Your task to perform on an android device: uninstall "Booking.com: Hotels and more" Image 0: 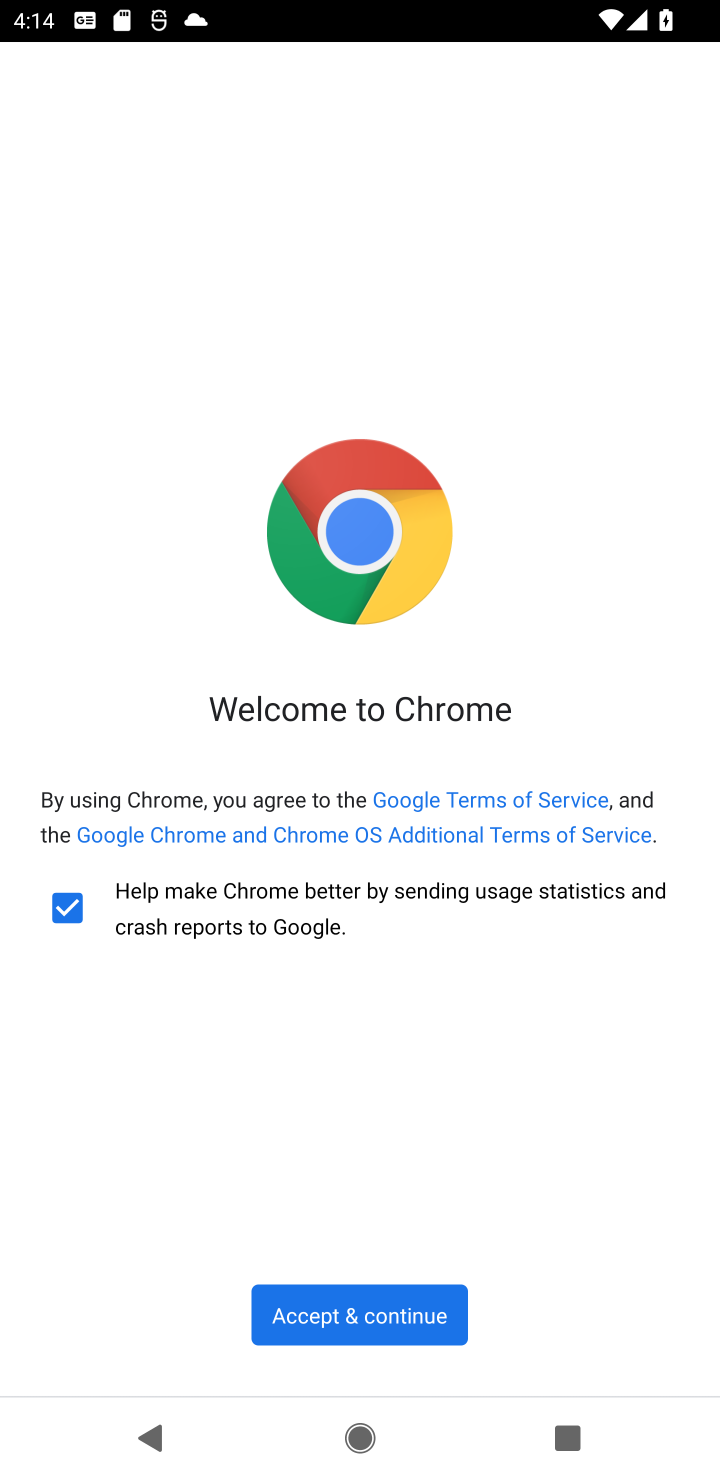
Step 0: press home button
Your task to perform on an android device: uninstall "Booking.com: Hotels and more" Image 1: 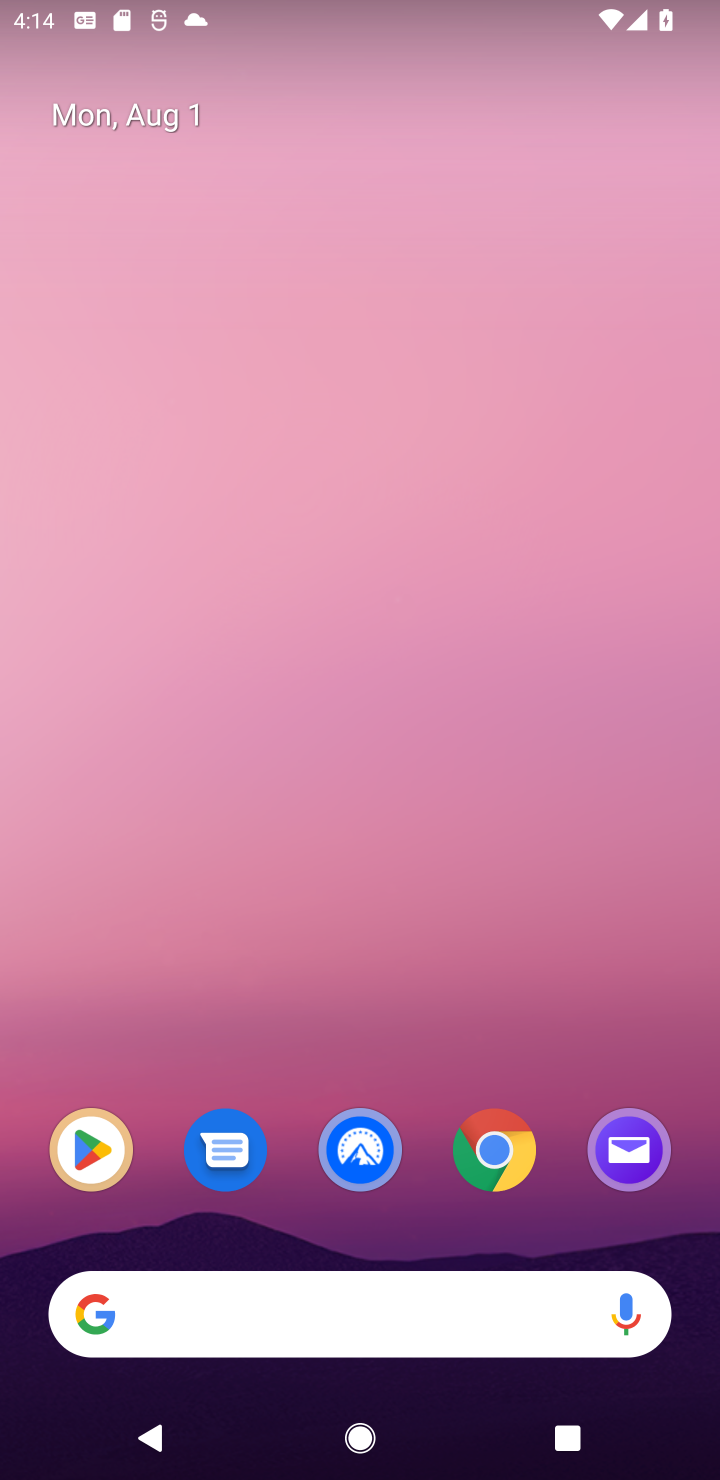
Step 1: click (111, 1184)
Your task to perform on an android device: uninstall "Booking.com: Hotels and more" Image 2: 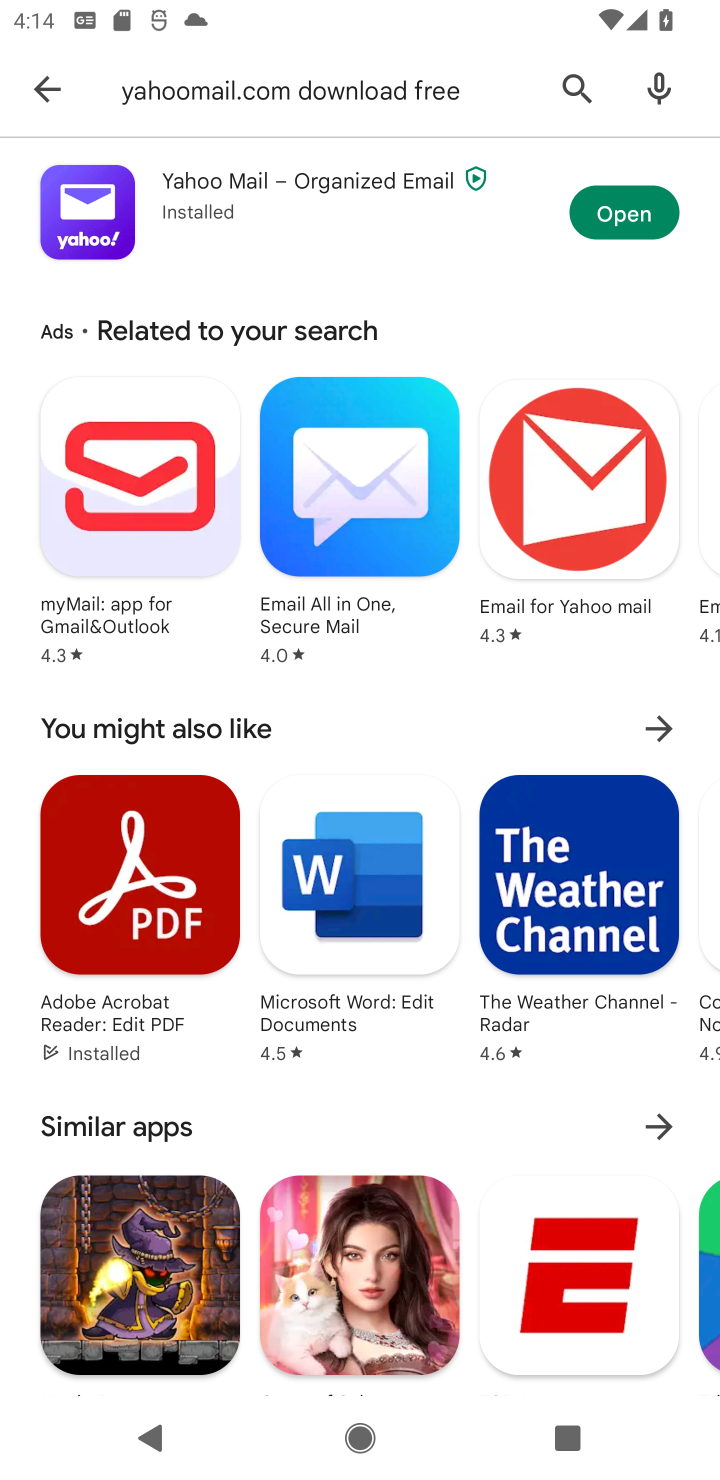
Step 2: click (548, 106)
Your task to perform on an android device: uninstall "Booking.com: Hotels and more" Image 3: 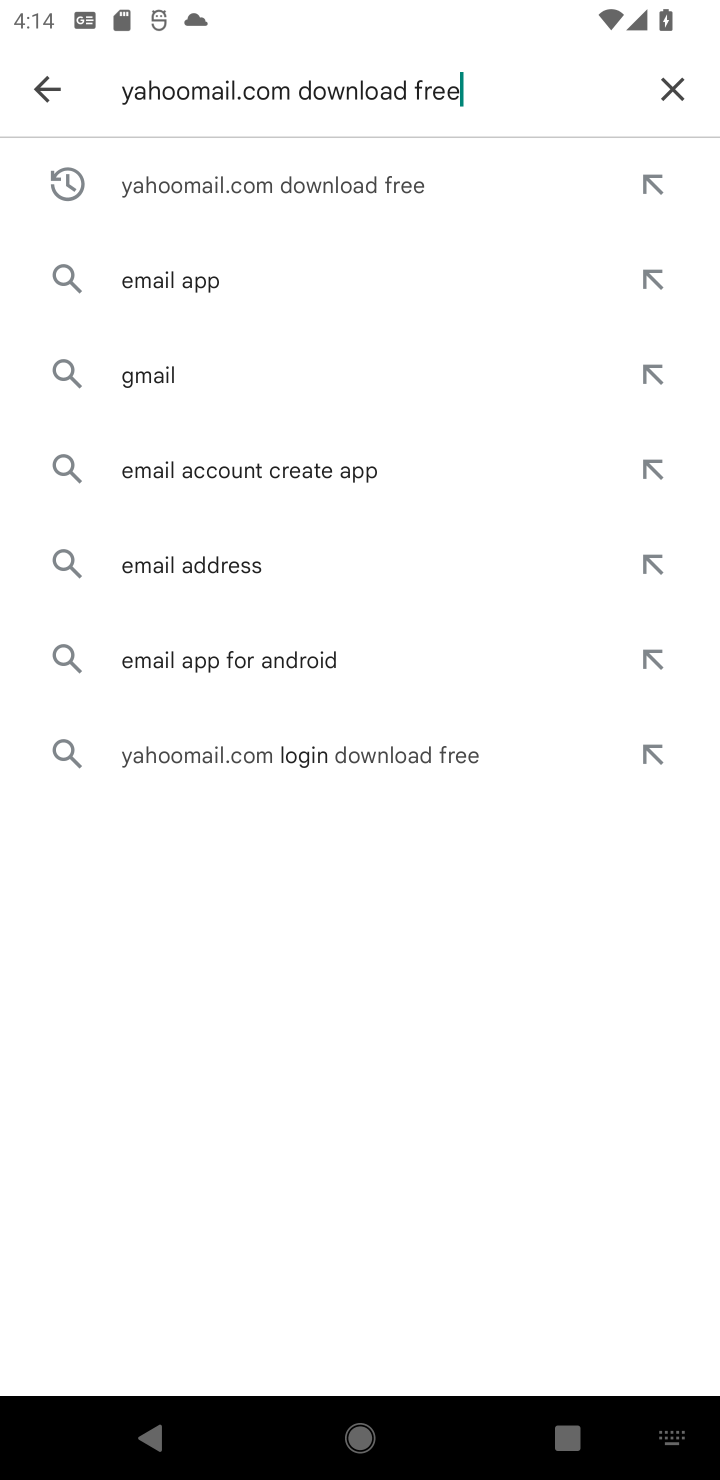
Step 3: click (668, 106)
Your task to perform on an android device: uninstall "Booking.com: Hotels and more" Image 4: 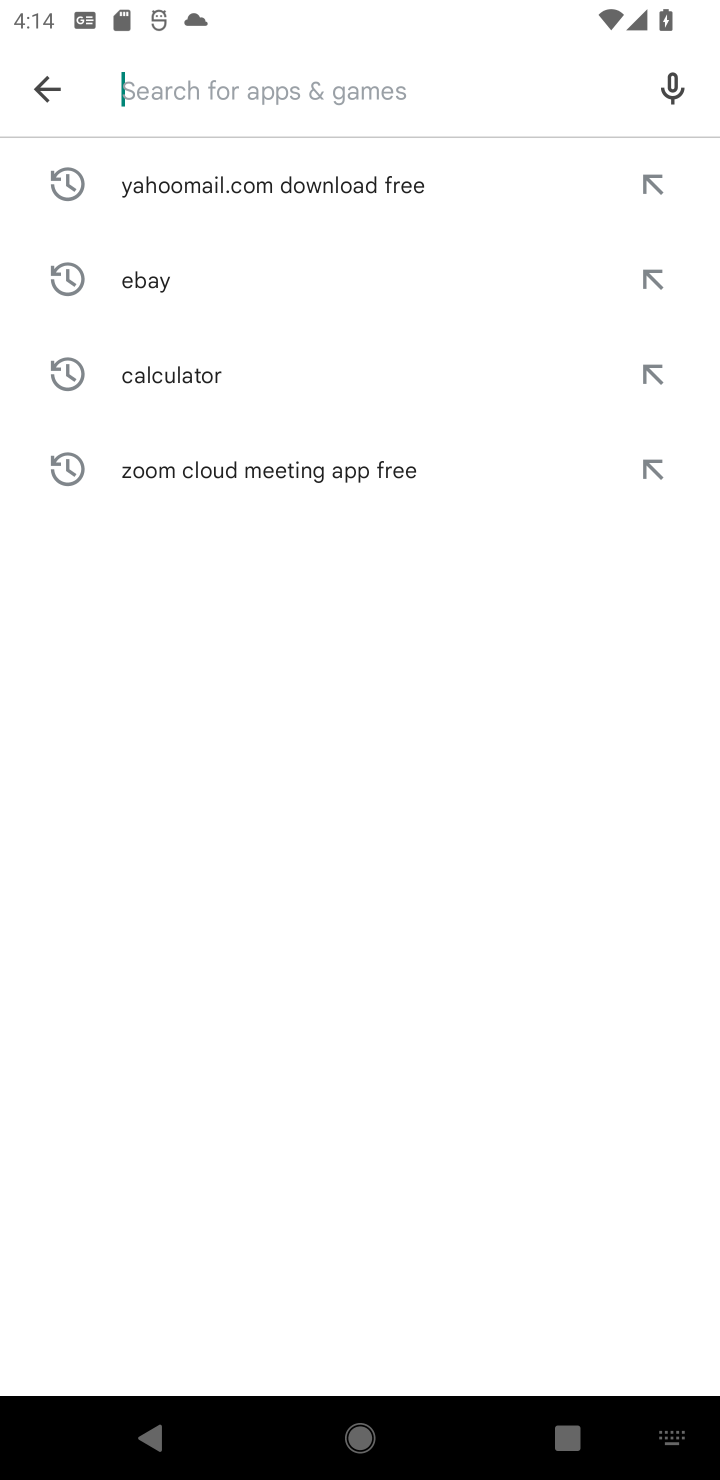
Step 4: type "booking"
Your task to perform on an android device: uninstall "Booking.com: Hotels and more" Image 5: 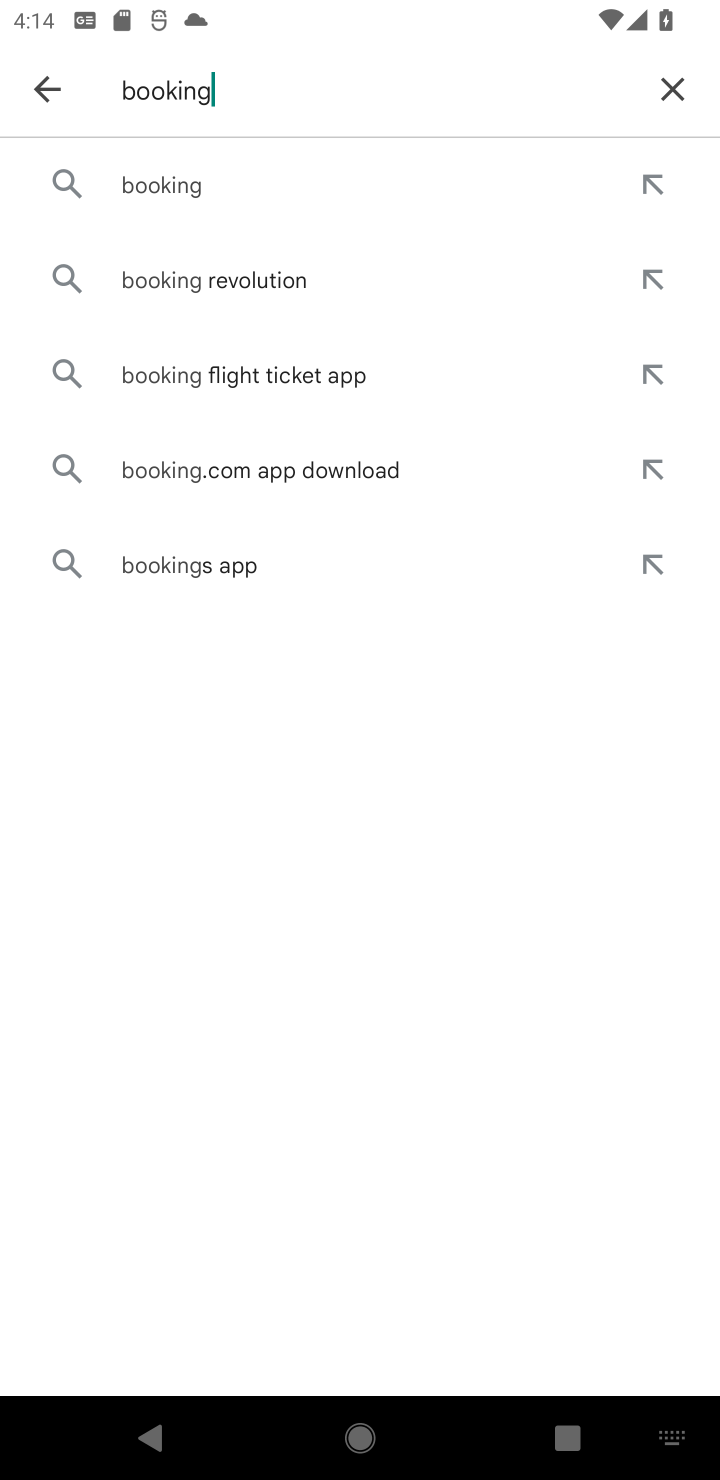
Step 5: click (284, 205)
Your task to perform on an android device: uninstall "Booking.com: Hotels and more" Image 6: 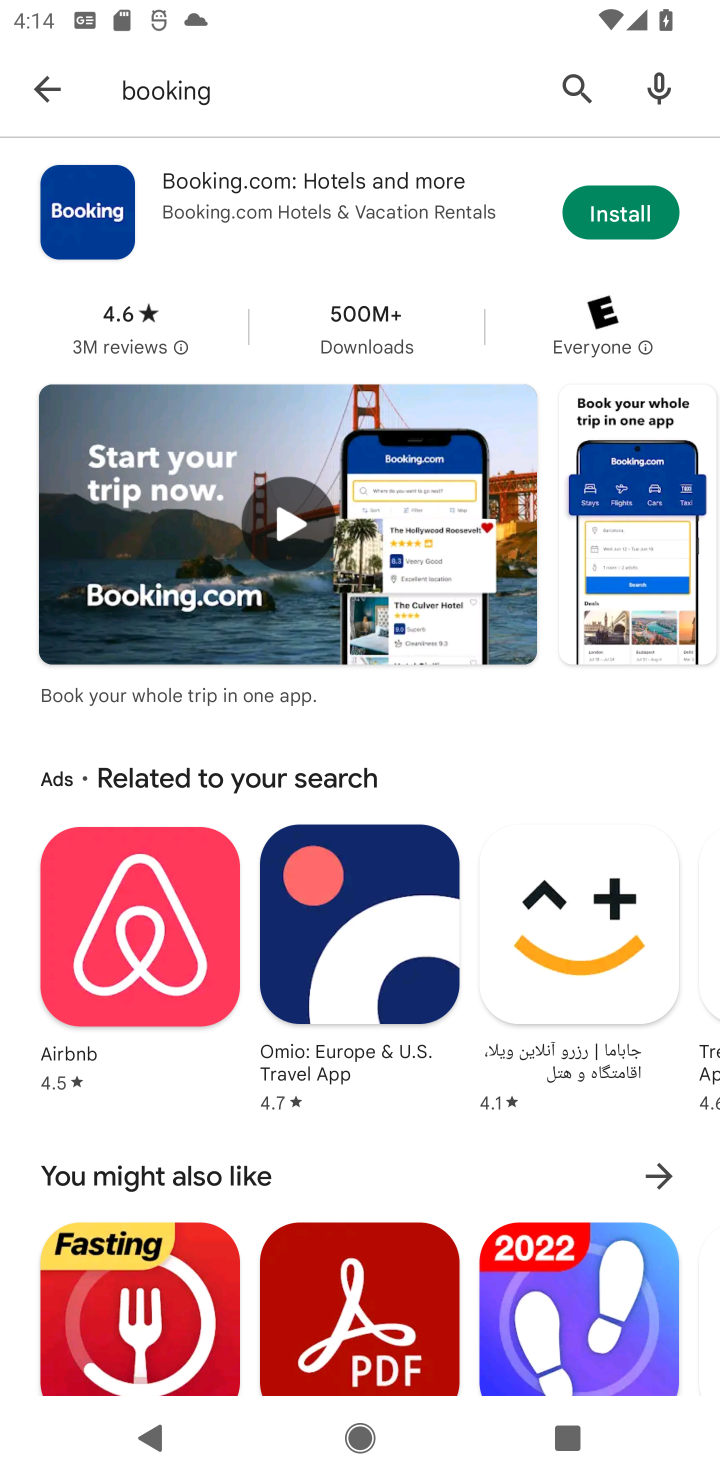
Step 6: click (599, 233)
Your task to perform on an android device: uninstall "Booking.com: Hotels and more" Image 7: 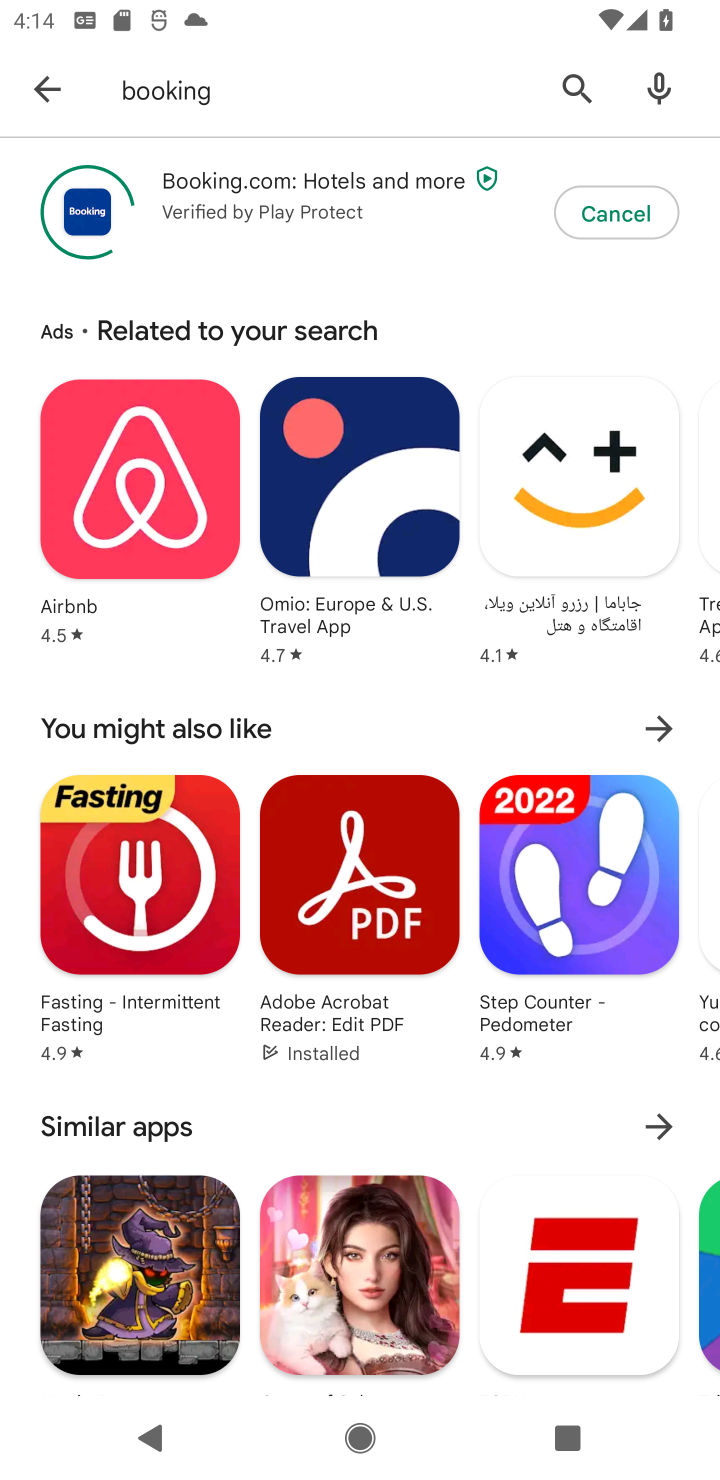
Step 7: task complete